Your task to perform on an android device: set an alarm Image 0: 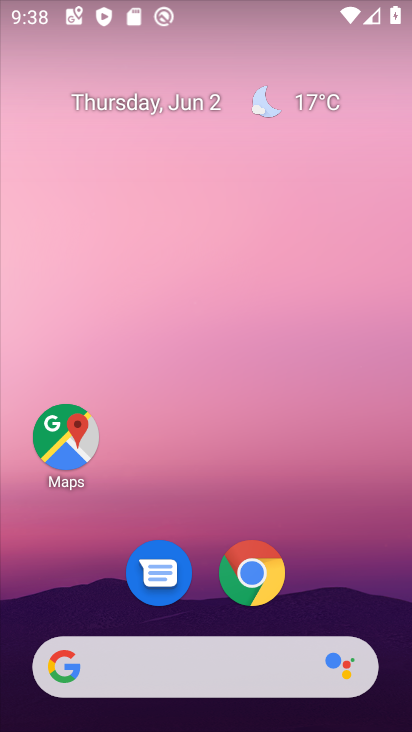
Step 0: drag from (326, 586) to (233, 153)
Your task to perform on an android device: set an alarm Image 1: 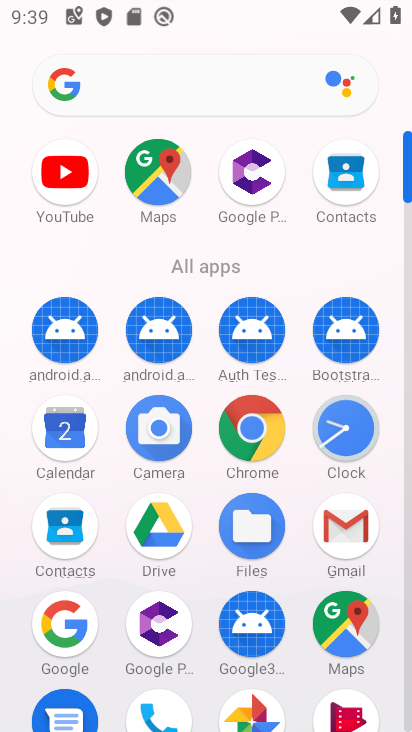
Step 1: click (345, 426)
Your task to perform on an android device: set an alarm Image 2: 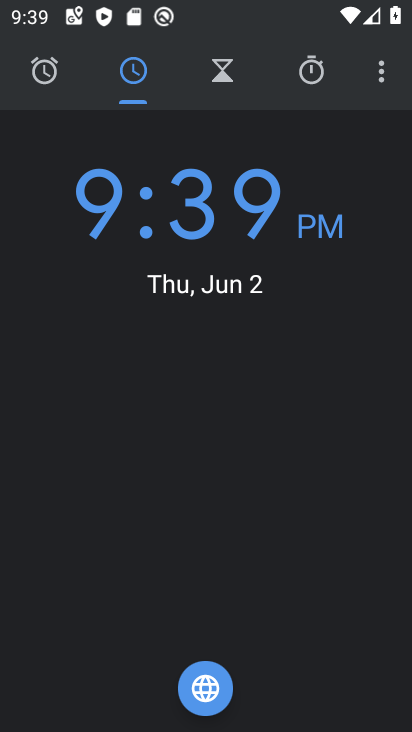
Step 2: click (42, 67)
Your task to perform on an android device: set an alarm Image 3: 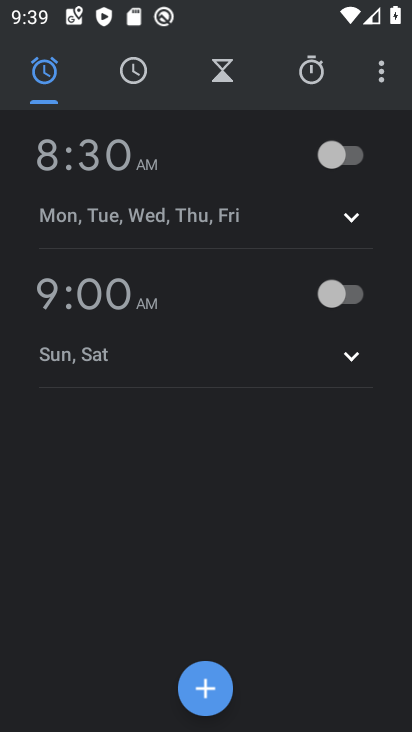
Step 3: click (206, 682)
Your task to perform on an android device: set an alarm Image 4: 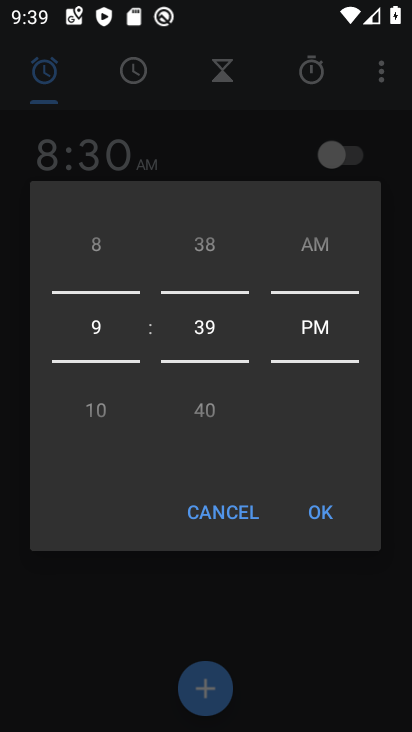
Step 4: click (98, 249)
Your task to perform on an android device: set an alarm Image 5: 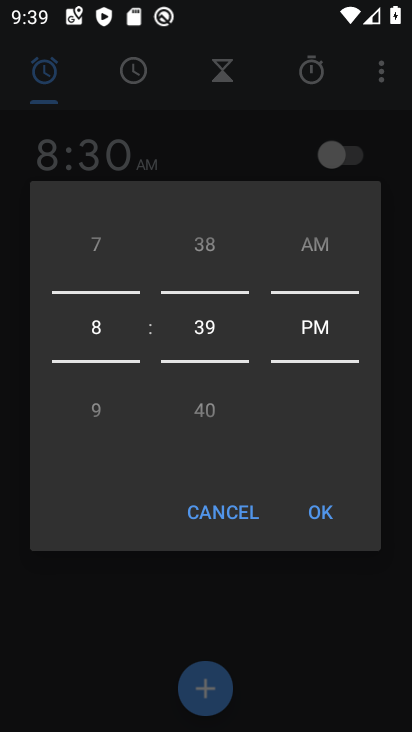
Step 5: click (98, 249)
Your task to perform on an android device: set an alarm Image 6: 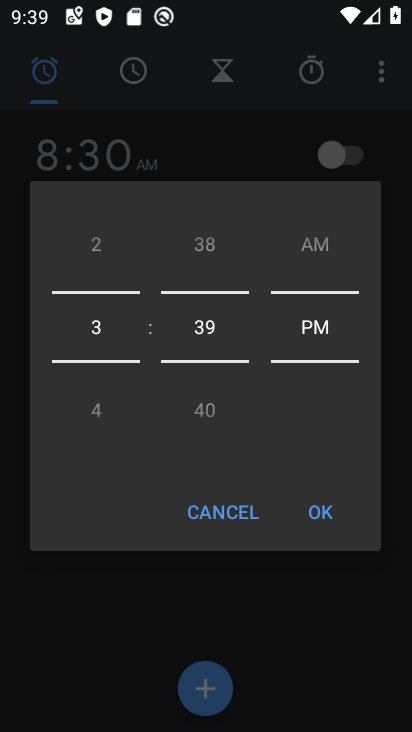
Step 6: click (204, 250)
Your task to perform on an android device: set an alarm Image 7: 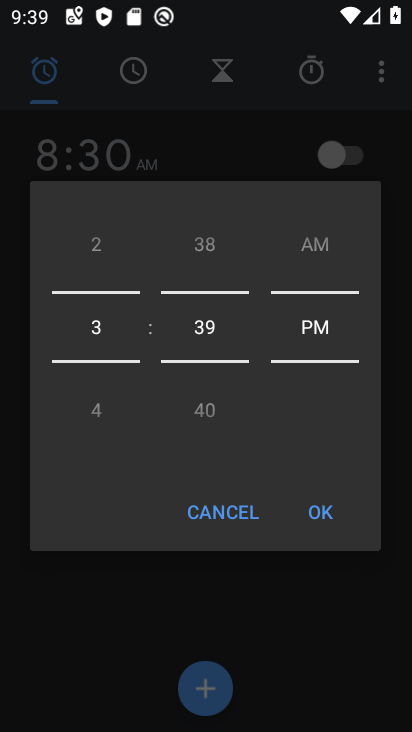
Step 7: click (207, 242)
Your task to perform on an android device: set an alarm Image 8: 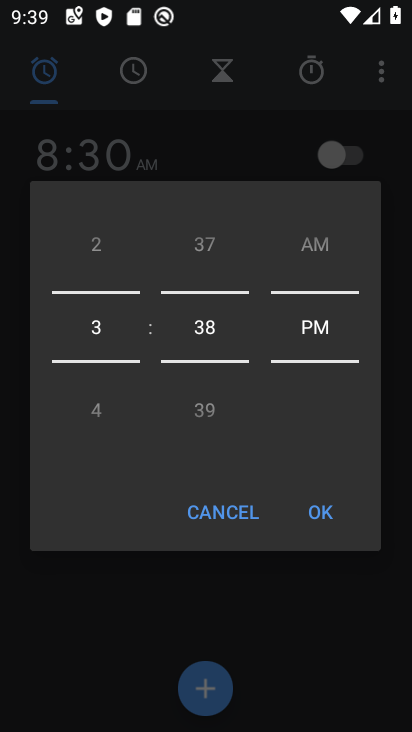
Step 8: click (321, 248)
Your task to perform on an android device: set an alarm Image 9: 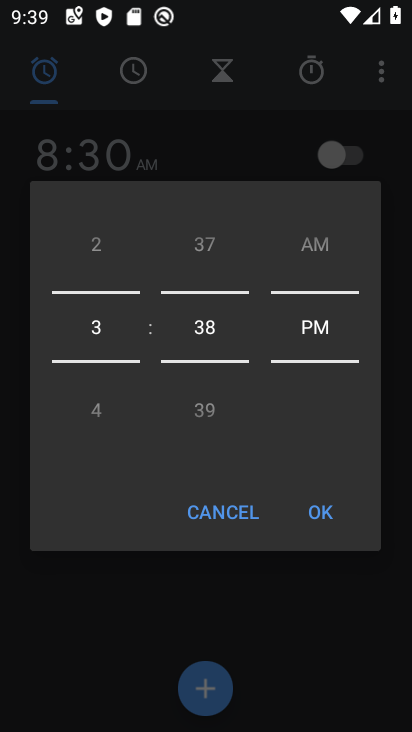
Step 9: drag from (323, 334) to (358, 405)
Your task to perform on an android device: set an alarm Image 10: 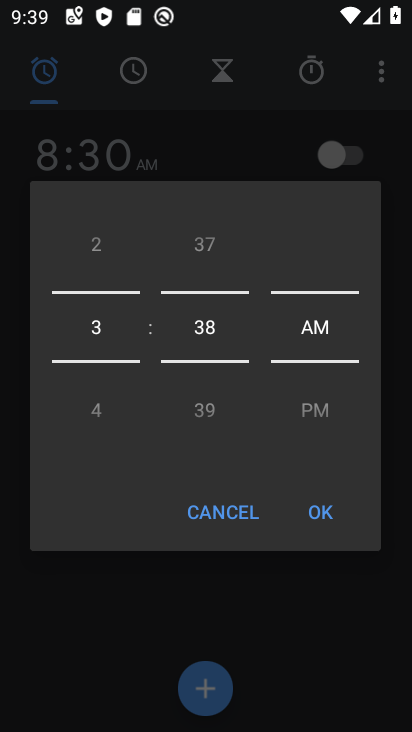
Step 10: click (324, 508)
Your task to perform on an android device: set an alarm Image 11: 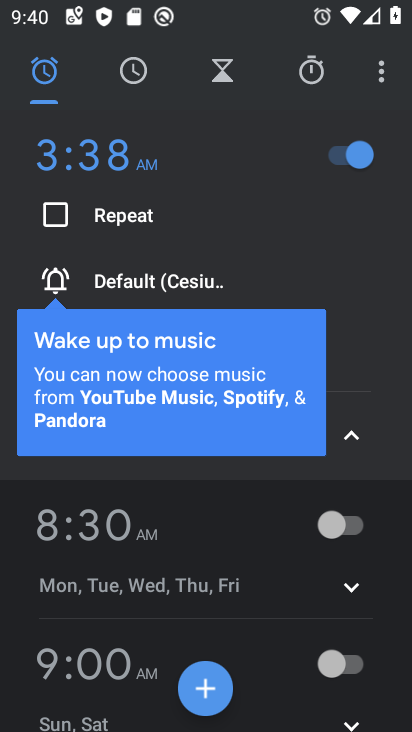
Step 11: click (359, 434)
Your task to perform on an android device: set an alarm Image 12: 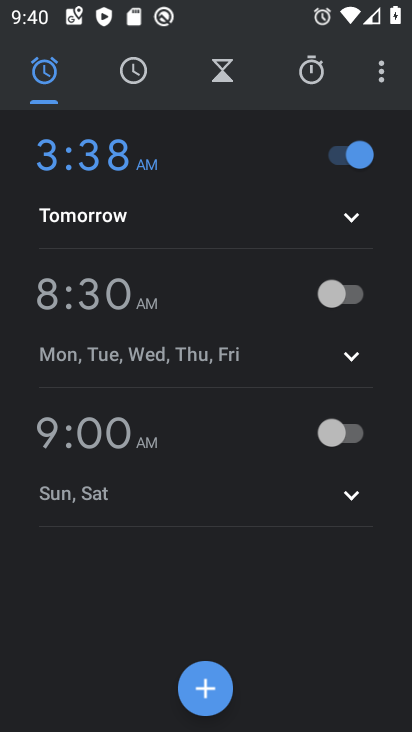
Step 12: task complete